Your task to perform on an android device: toggle airplane mode Image 0: 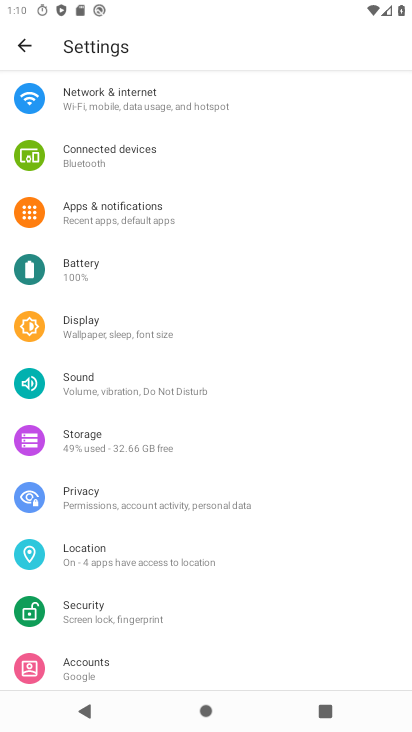
Step 0: drag from (200, 573) to (168, 291)
Your task to perform on an android device: toggle airplane mode Image 1: 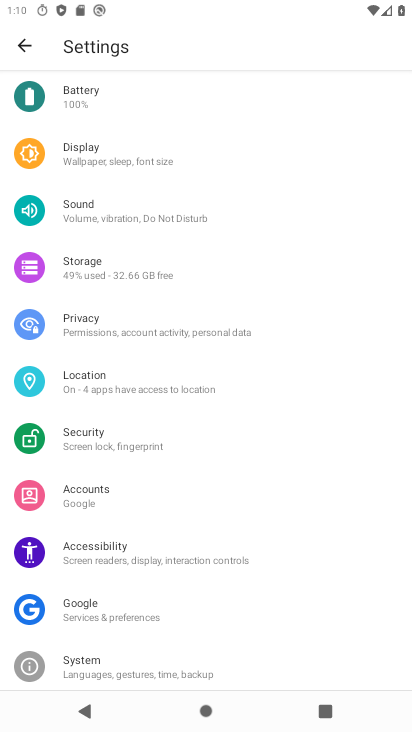
Step 1: drag from (188, 378) to (206, 536)
Your task to perform on an android device: toggle airplane mode Image 2: 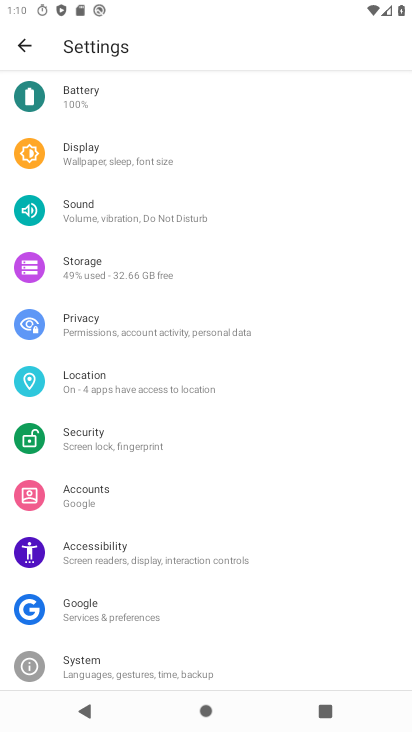
Step 2: drag from (174, 582) to (91, 264)
Your task to perform on an android device: toggle airplane mode Image 3: 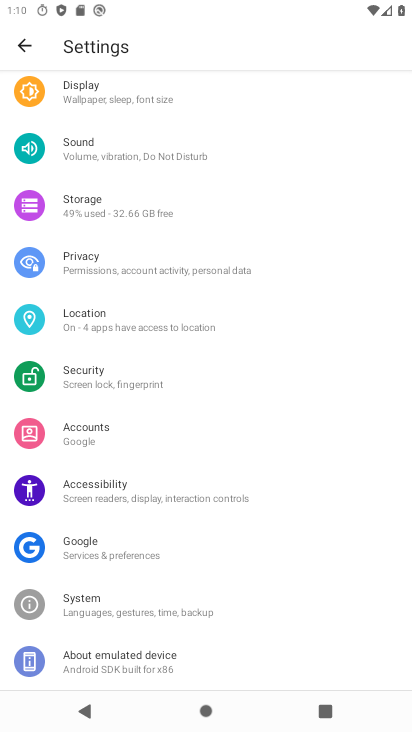
Step 3: drag from (192, 302) to (221, 566)
Your task to perform on an android device: toggle airplane mode Image 4: 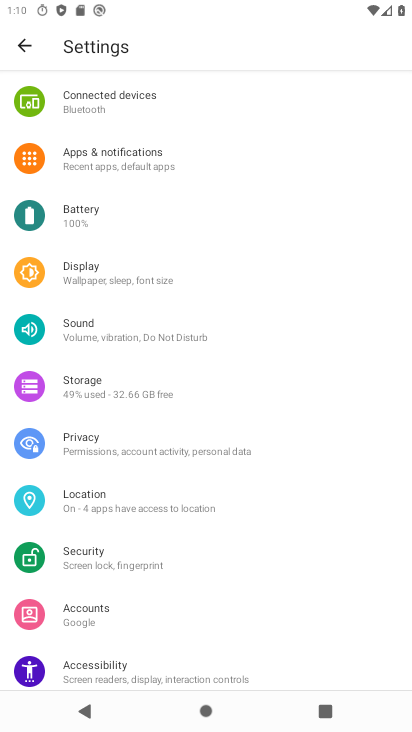
Step 4: drag from (174, 320) to (204, 529)
Your task to perform on an android device: toggle airplane mode Image 5: 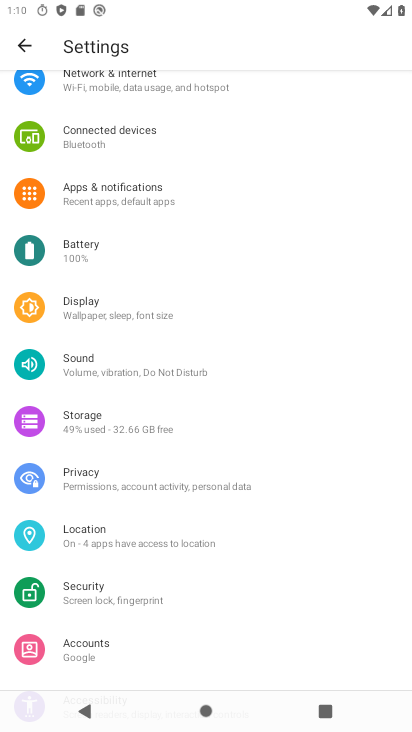
Step 5: drag from (163, 333) to (171, 533)
Your task to perform on an android device: toggle airplane mode Image 6: 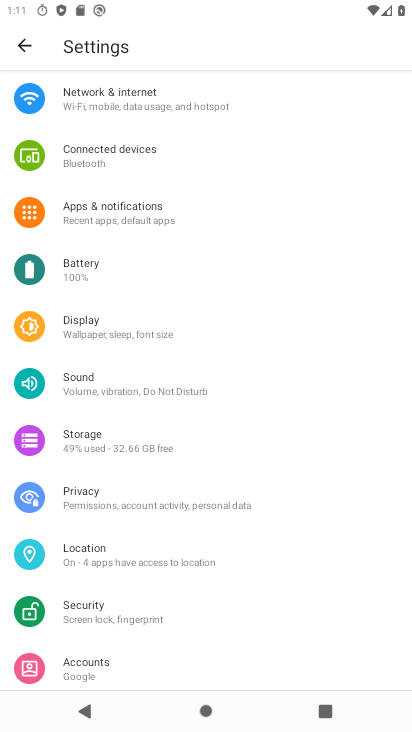
Step 6: drag from (173, 257) to (174, 509)
Your task to perform on an android device: toggle airplane mode Image 7: 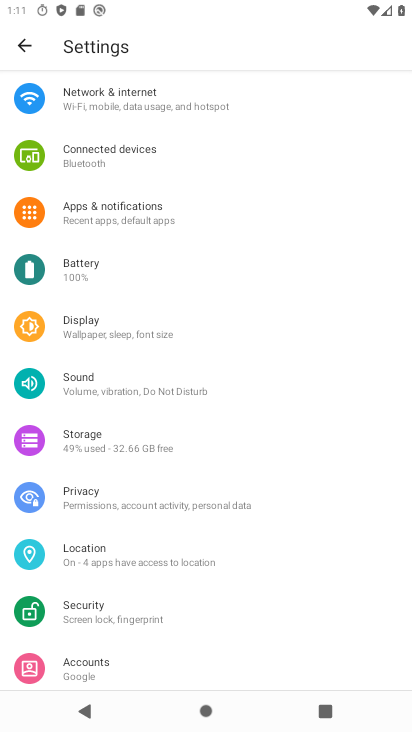
Step 7: drag from (157, 386) to (173, 476)
Your task to perform on an android device: toggle airplane mode Image 8: 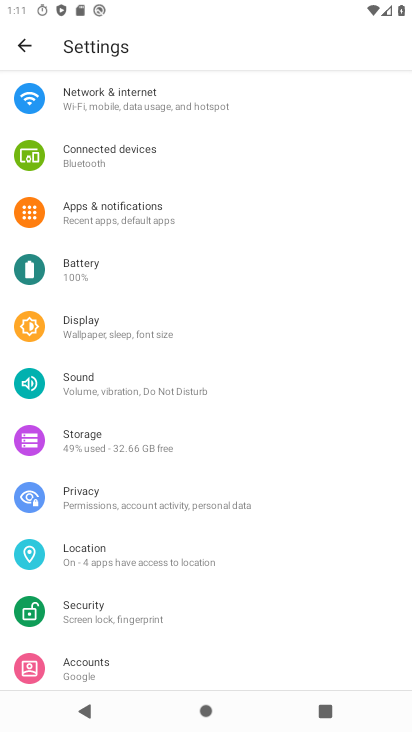
Step 8: click (226, 497)
Your task to perform on an android device: toggle airplane mode Image 9: 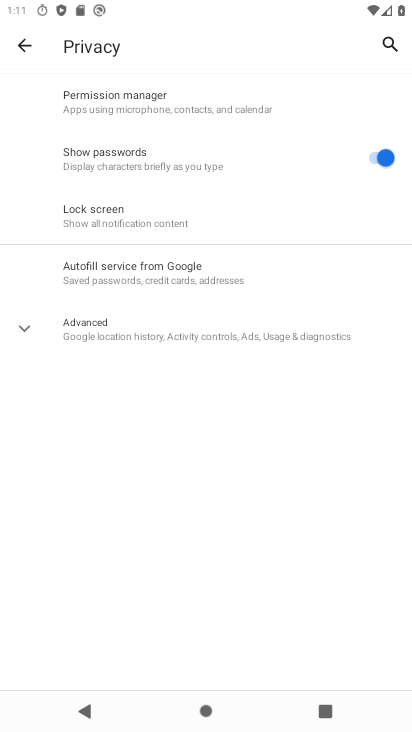
Step 9: click (21, 40)
Your task to perform on an android device: toggle airplane mode Image 10: 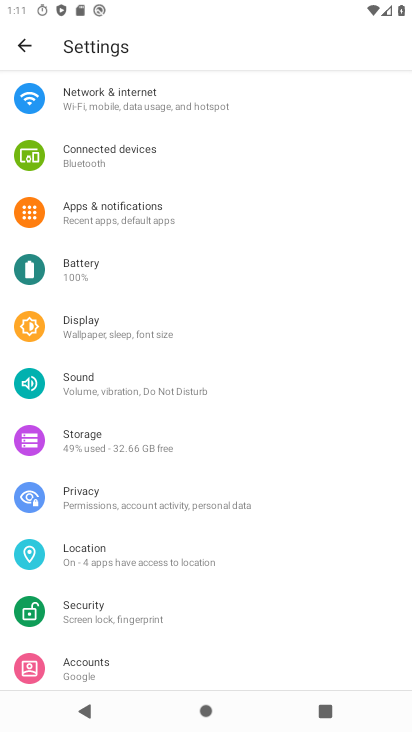
Step 10: click (117, 102)
Your task to perform on an android device: toggle airplane mode Image 11: 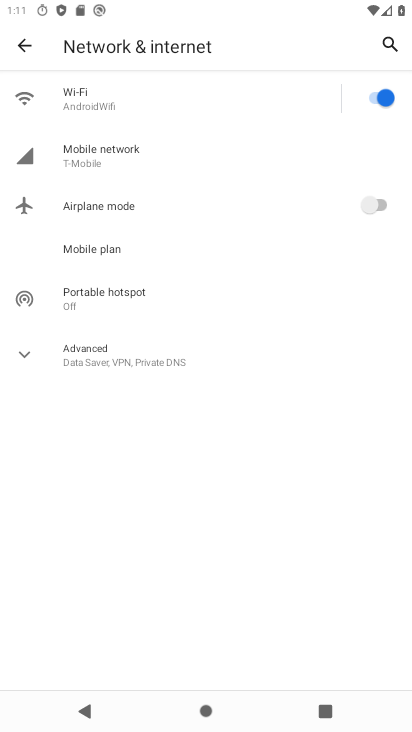
Step 11: click (378, 202)
Your task to perform on an android device: toggle airplane mode Image 12: 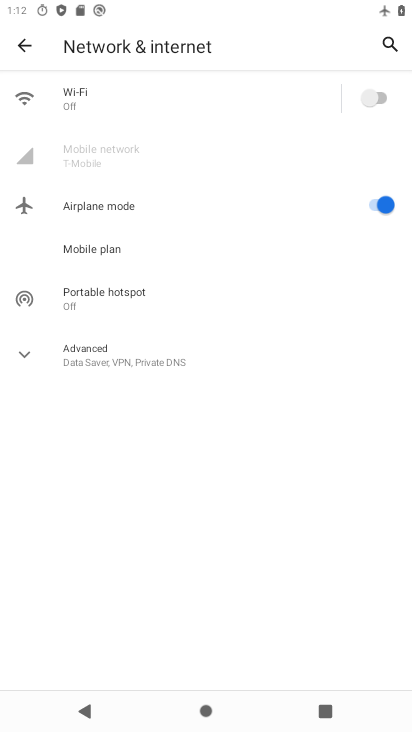
Step 12: task complete